Your task to perform on an android device: Go to display settings Image 0: 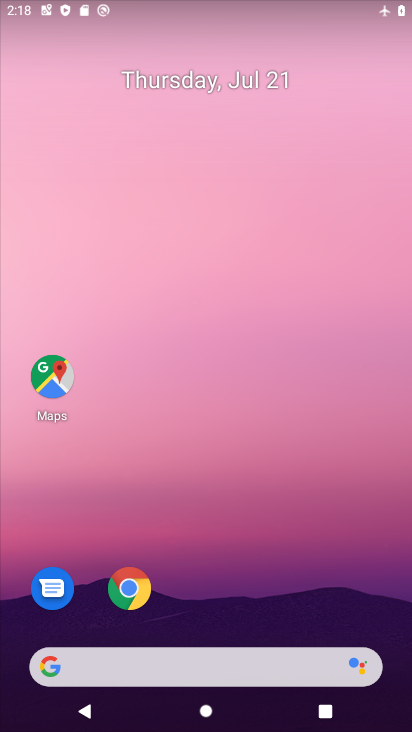
Step 0: drag from (188, 595) to (315, 56)
Your task to perform on an android device: Go to display settings Image 1: 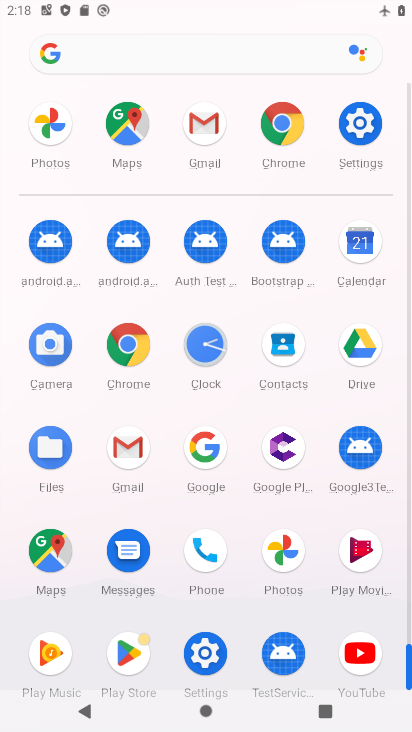
Step 1: click (197, 650)
Your task to perform on an android device: Go to display settings Image 2: 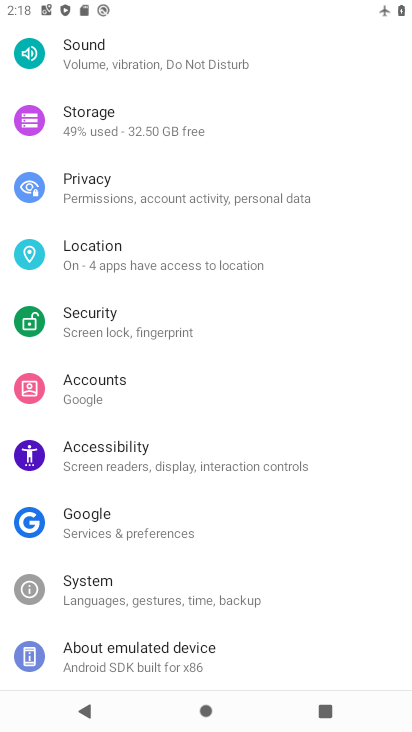
Step 2: drag from (250, 612) to (261, 300)
Your task to perform on an android device: Go to display settings Image 3: 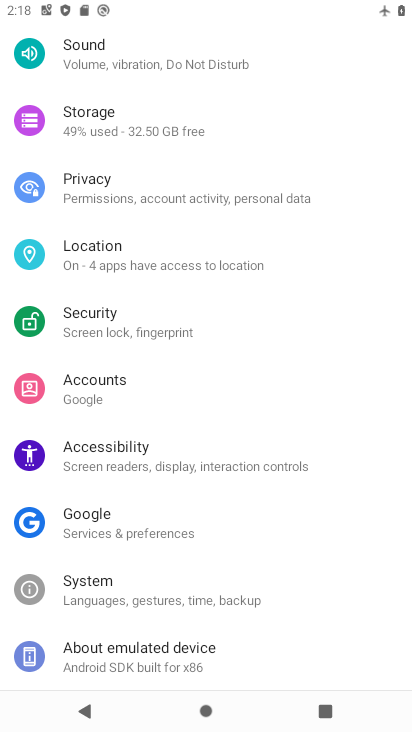
Step 3: drag from (140, 573) to (181, 259)
Your task to perform on an android device: Go to display settings Image 4: 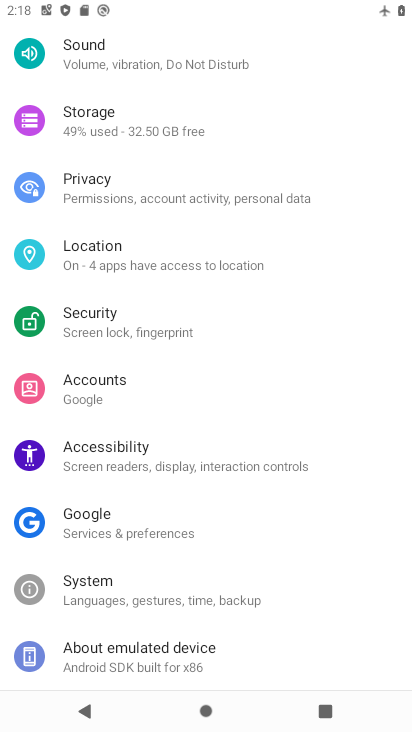
Step 4: drag from (212, 532) to (240, 343)
Your task to perform on an android device: Go to display settings Image 5: 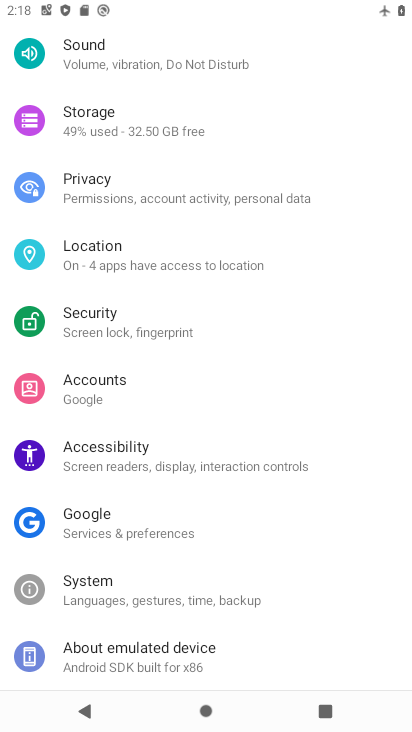
Step 5: drag from (224, 572) to (236, 296)
Your task to perform on an android device: Go to display settings Image 6: 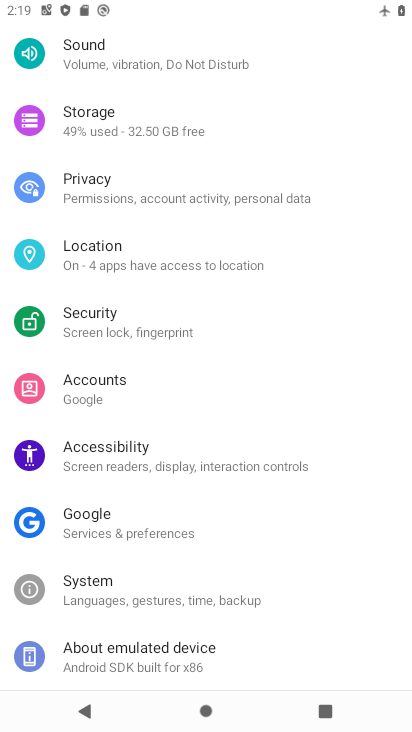
Step 6: drag from (151, 589) to (273, 429)
Your task to perform on an android device: Go to display settings Image 7: 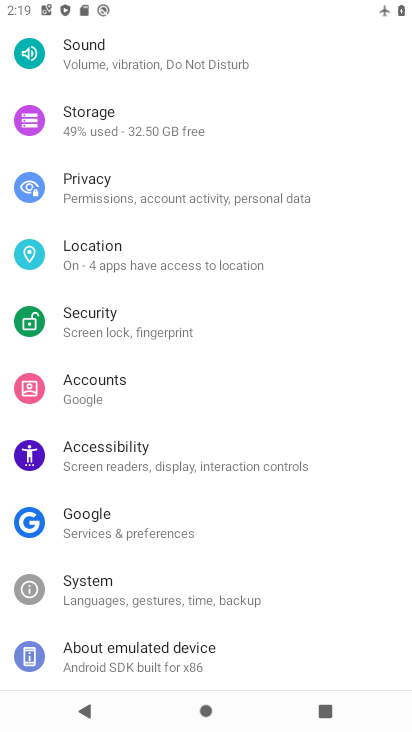
Step 7: drag from (182, 515) to (211, 261)
Your task to perform on an android device: Go to display settings Image 8: 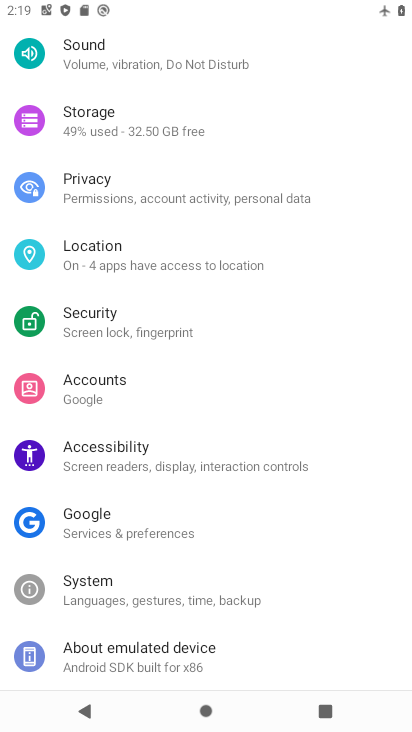
Step 8: drag from (254, 502) to (271, 189)
Your task to perform on an android device: Go to display settings Image 9: 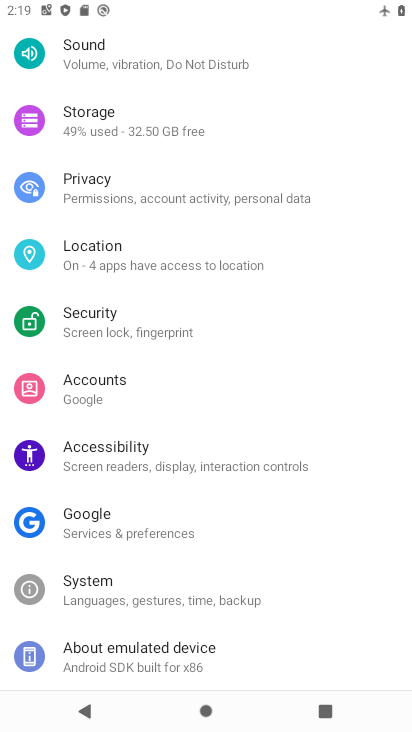
Step 9: drag from (122, 116) to (240, 730)
Your task to perform on an android device: Go to display settings Image 10: 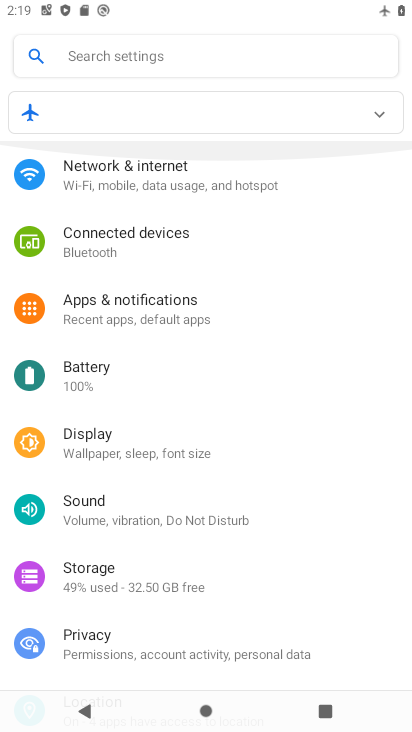
Step 10: drag from (214, 581) to (254, 84)
Your task to perform on an android device: Go to display settings Image 11: 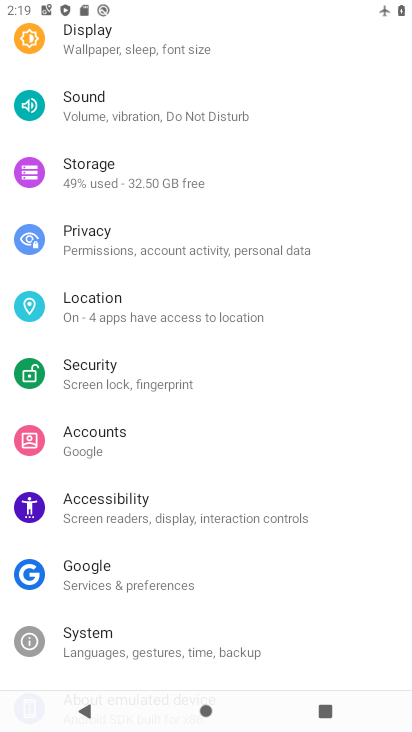
Step 11: click (114, 36)
Your task to perform on an android device: Go to display settings Image 12: 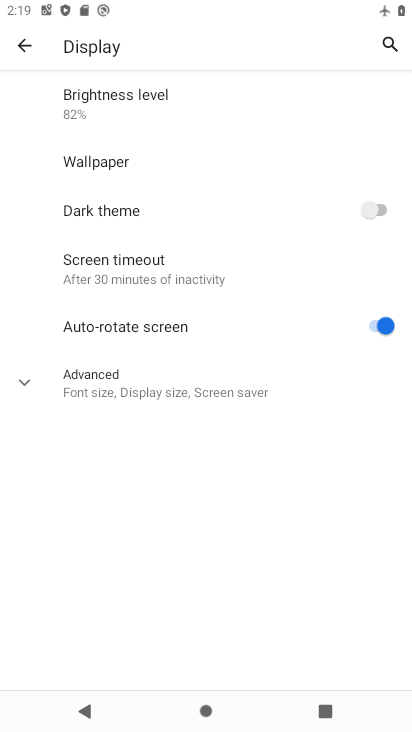
Step 12: click (103, 394)
Your task to perform on an android device: Go to display settings Image 13: 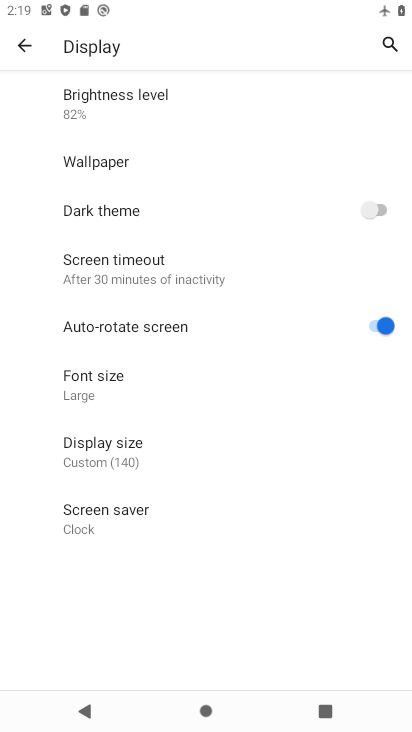
Step 13: task complete